Your task to perform on an android device: Open Google Chrome and open the bookmarks view Image 0: 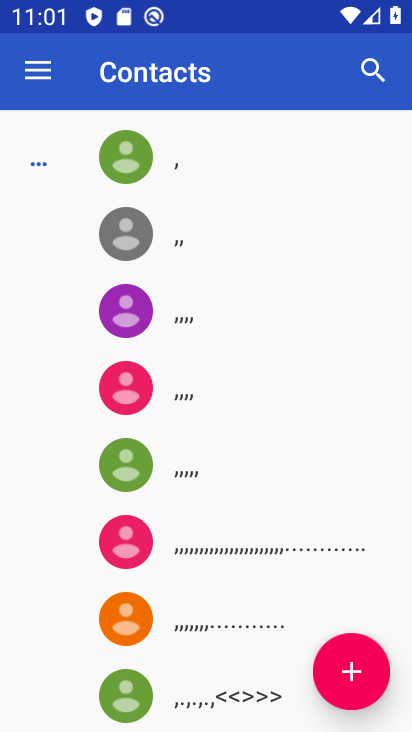
Step 0: press home button
Your task to perform on an android device: Open Google Chrome and open the bookmarks view Image 1: 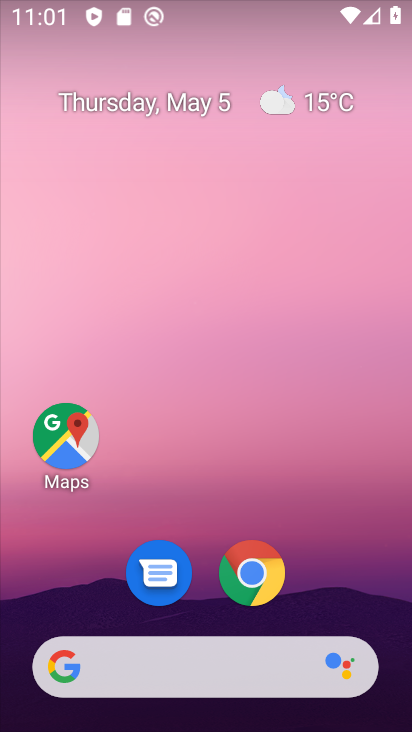
Step 1: click (224, 571)
Your task to perform on an android device: Open Google Chrome and open the bookmarks view Image 2: 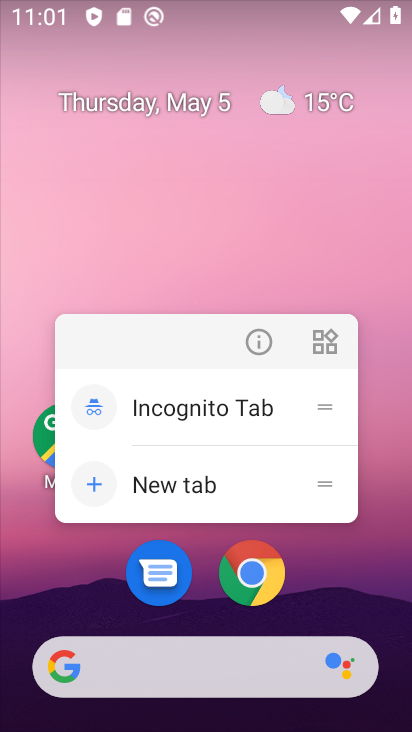
Step 2: click (242, 574)
Your task to perform on an android device: Open Google Chrome and open the bookmarks view Image 3: 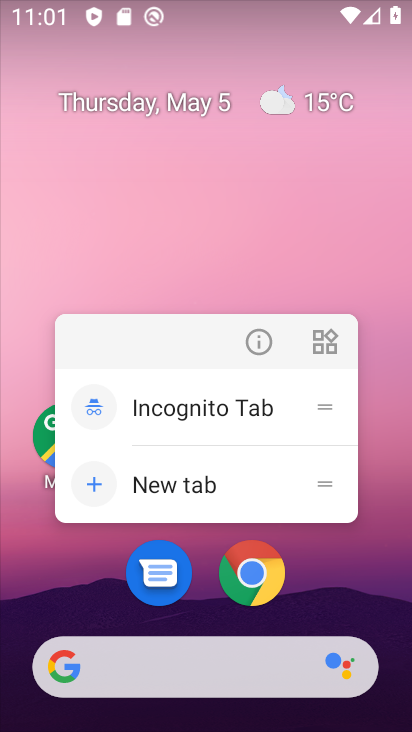
Step 3: click (265, 583)
Your task to perform on an android device: Open Google Chrome and open the bookmarks view Image 4: 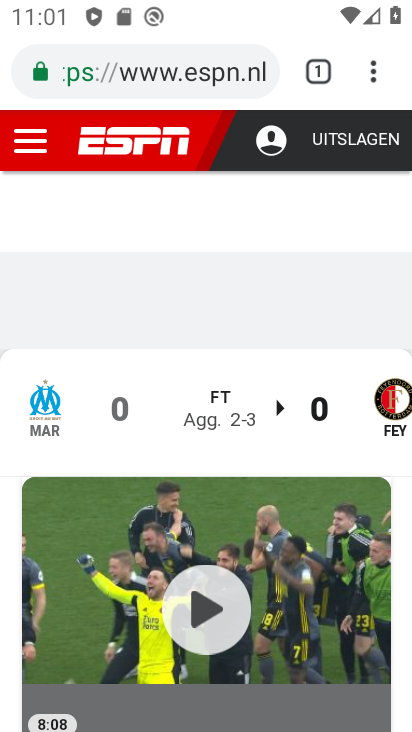
Step 4: click (367, 69)
Your task to perform on an android device: Open Google Chrome and open the bookmarks view Image 5: 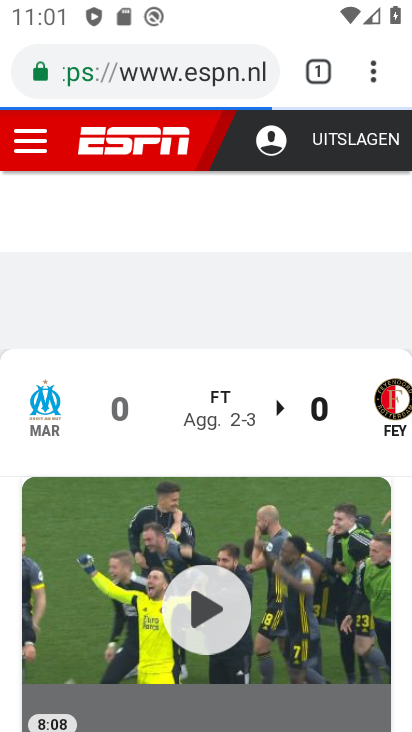
Step 5: task complete